Your task to perform on an android device: find which apps use the phone's location Image 0: 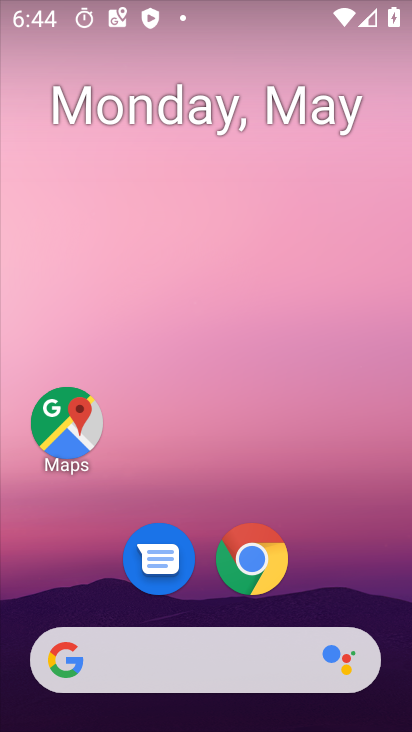
Step 0: drag from (393, 612) to (260, 142)
Your task to perform on an android device: find which apps use the phone's location Image 1: 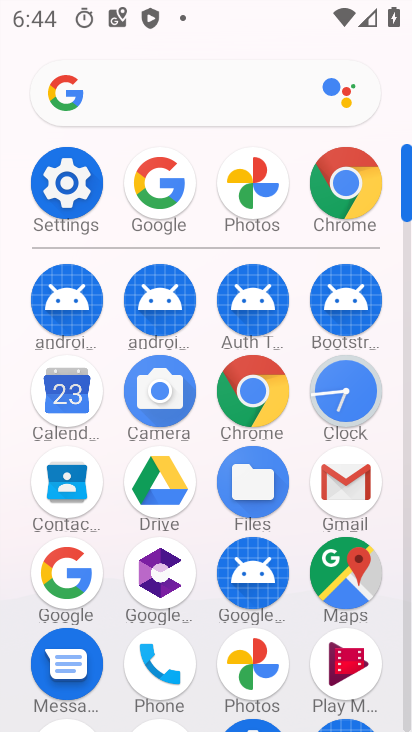
Step 1: click (55, 202)
Your task to perform on an android device: find which apps use the phone's location Image 2: 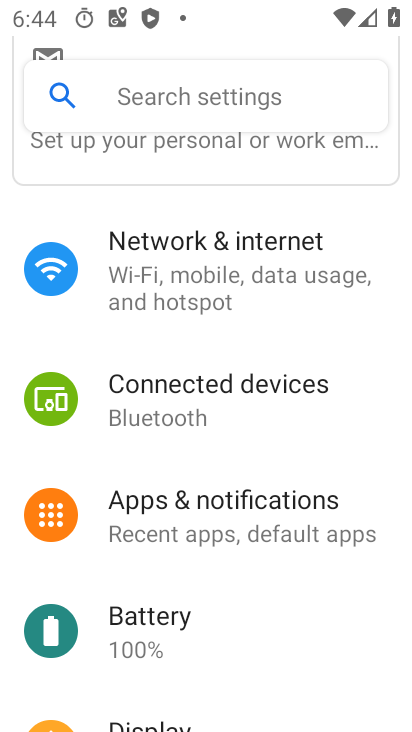
Step 2: drag from (154, 666) to (259, 161)
Your task to perform on an android device: find which apps use the phone's location Image 3: 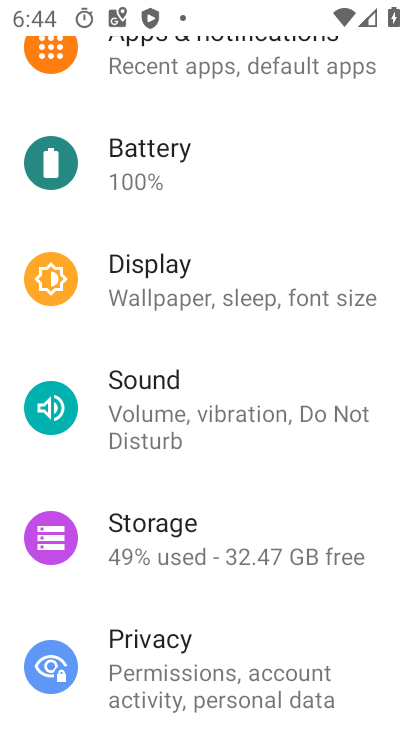
Step 3: drag from (154, 647) to (108, 163)
Your task to perform on an android device: find which apps use the phone's location Image 4: 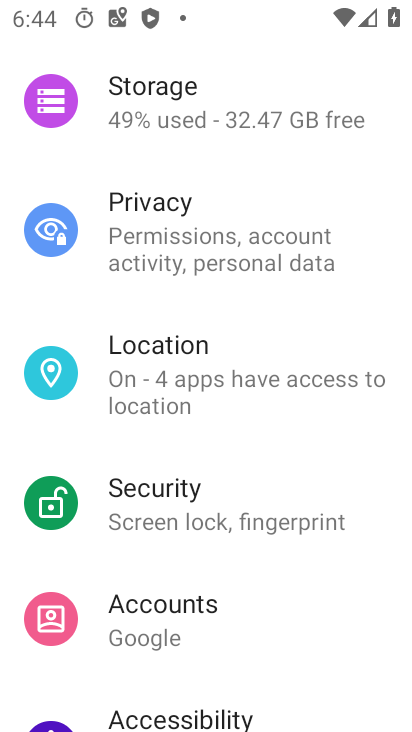
Step 4: click (168, 360)
Your task to perform on an android device: find which apps use the phone's location Image 5: 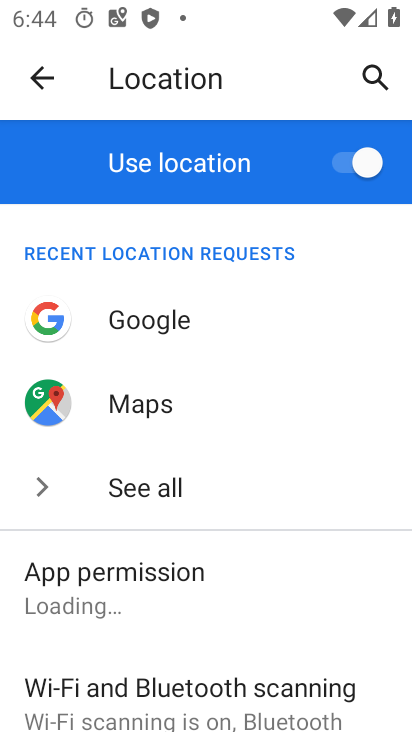
Step 5: click (198, 595)
Your task to perform on an android device: find which apps use the phone's location Image 6: 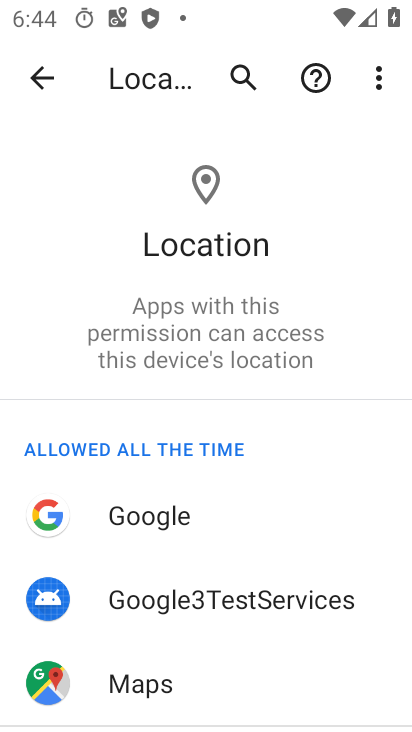
Step 6: drag from (171, 632) to (185, 68)
Your task to perform on an android device: find which apps use the phone's location Image 7: 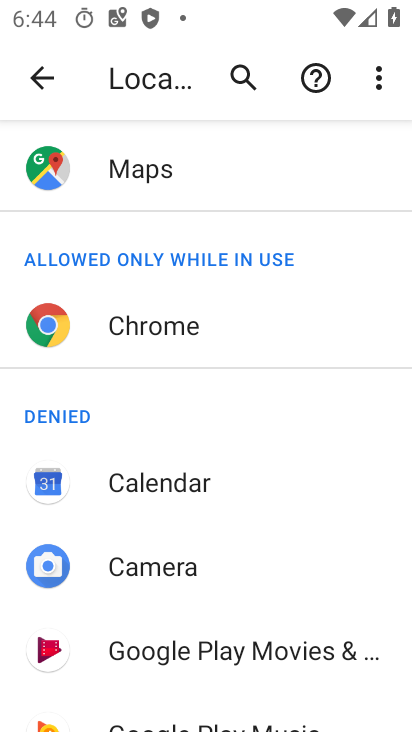
Step 7: drag from (90, 672) to (127, 193)
Your task to perform on an android device: find which apps use the phone's location Image 8: 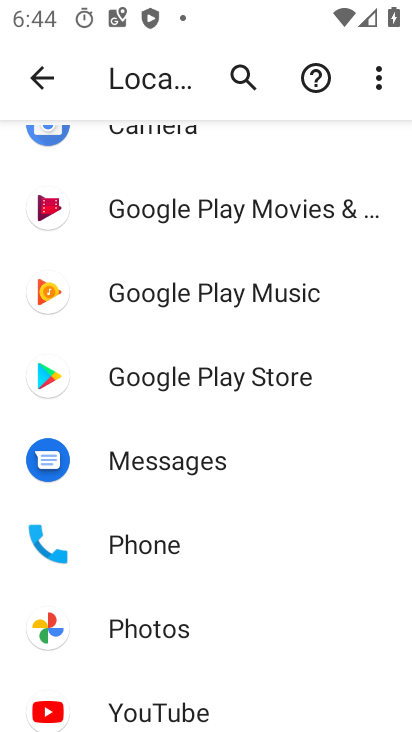
Step 8: click (161, 540)
Your task to perform on an android device: find which apps use the phone's location Image 9: 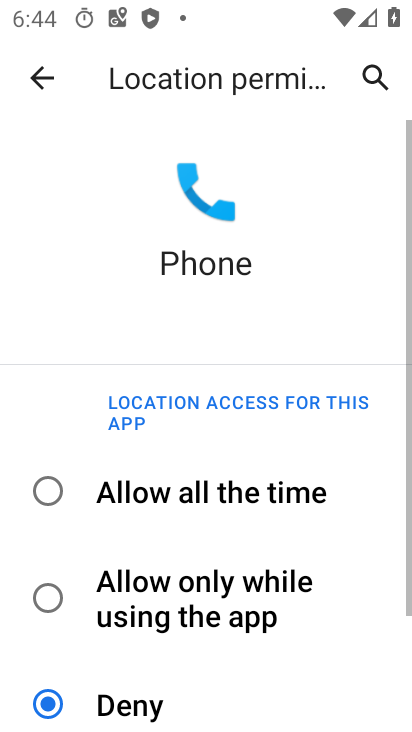
Step 9: click (128, 488)
Your task to perform on an android device: find which apps use the phone's location Image 10: 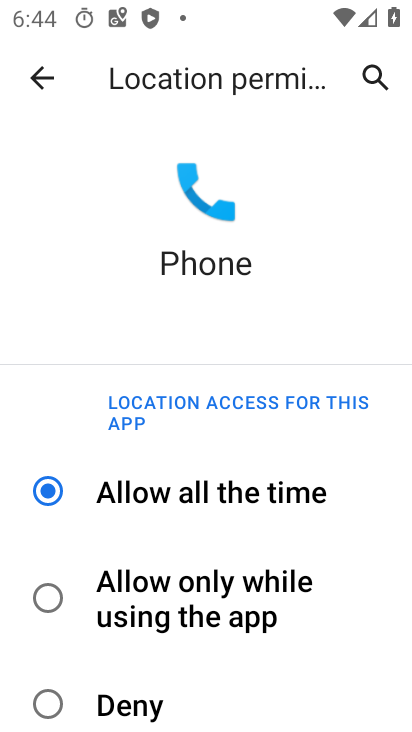
Step 10: task complete